Your task to perform on an android device: Do I have any events this weekend? Image 0: 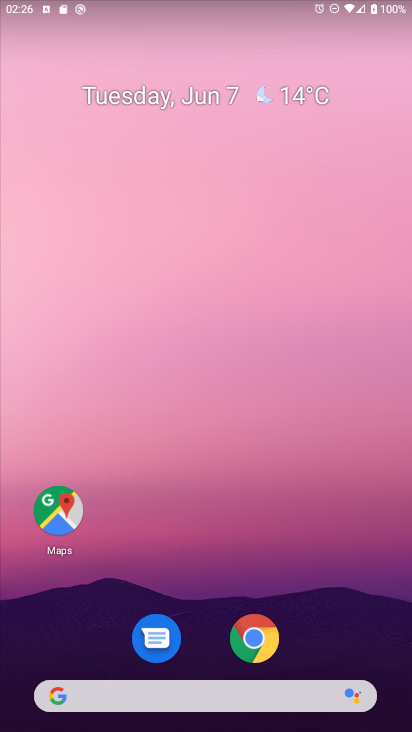
Step 0: press home button
Your task to perform on an android device: Do I have any events this weekend? Image 1: 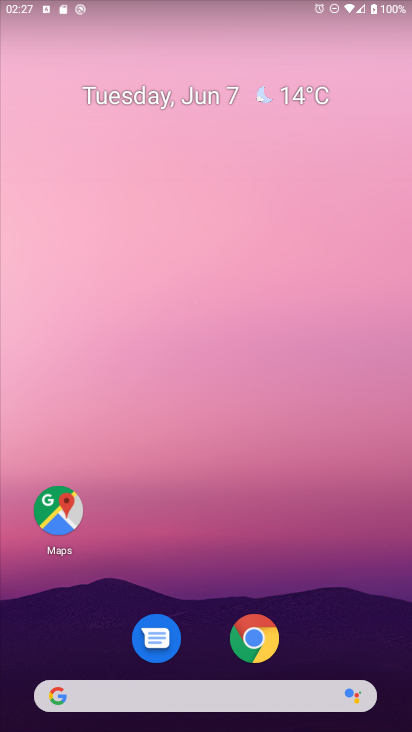
Step 1: drag from (217, 704) to (293, 304)
Your task to perform on an android device: Do I have any events this weekend? Image 2: 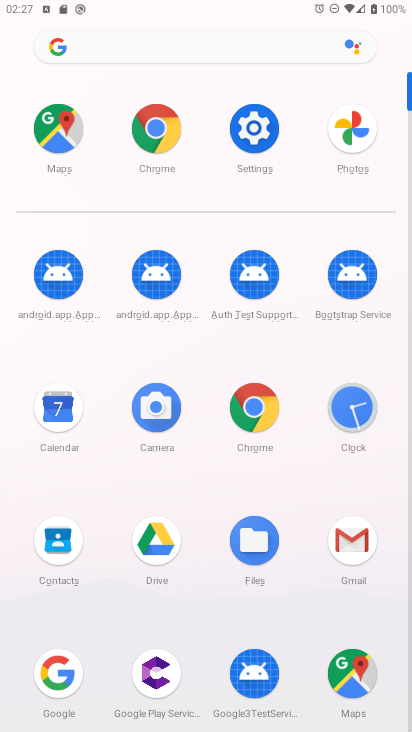
Step 2: click (76, 410)
Your task to perform on an android device: Do I have any events this weekend? Image 3: 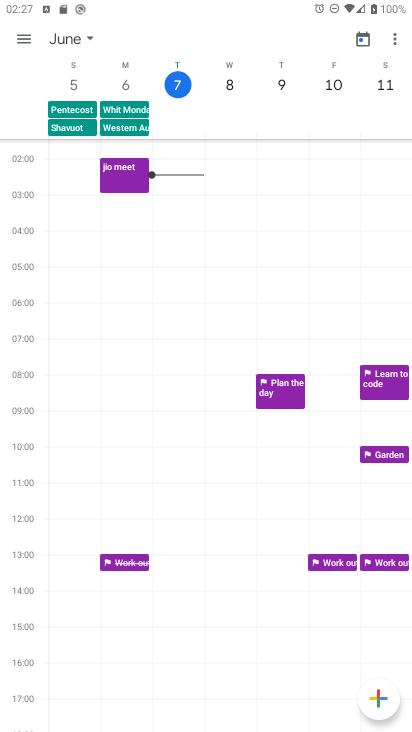
Step 3: click (25, 36)
Your task to perform on an android device: Do I have any events this weekend? Image 4: 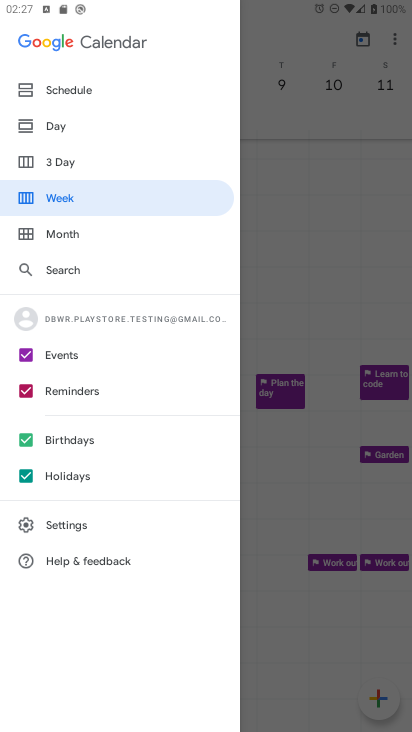
Step 4: click (64, 193)
Your task to perform on an android device: Do I have any events this weekend? Image 5: 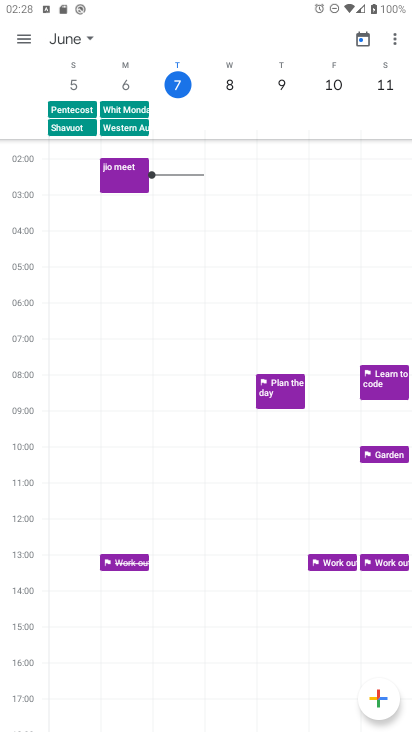
Step 5: task complete